Your task to perform on an android device: turn off javascript in the chrome app Image 0: 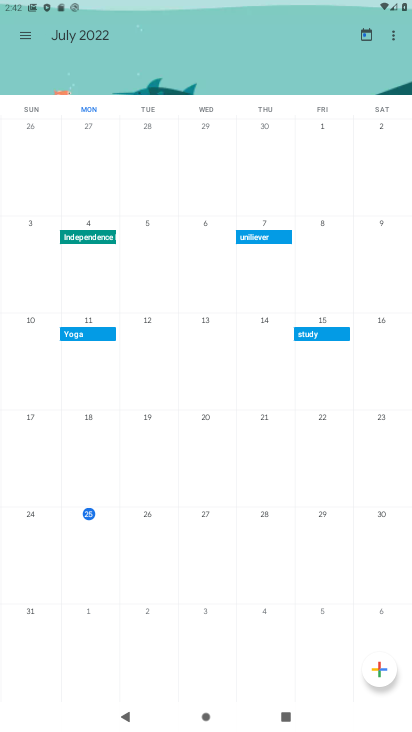
Step 0: press home button
Your task to perform on an android device: turn off javascript in the chrome app Image 1: 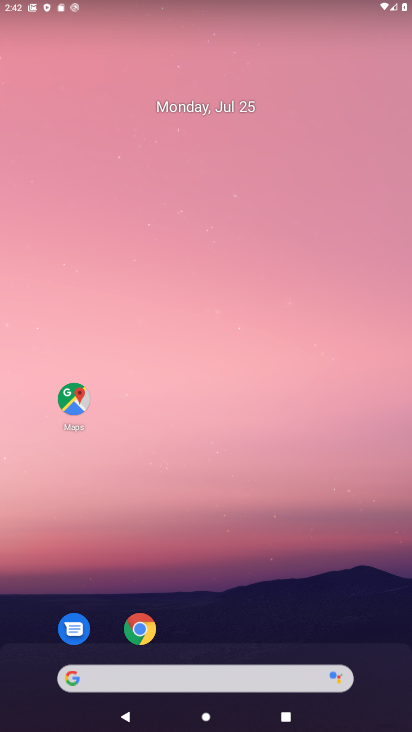
Step 1: drag from (315, 606) to (246, 175)
Your task to perform on an android device: turn off javascript in the chrome app Image 2: 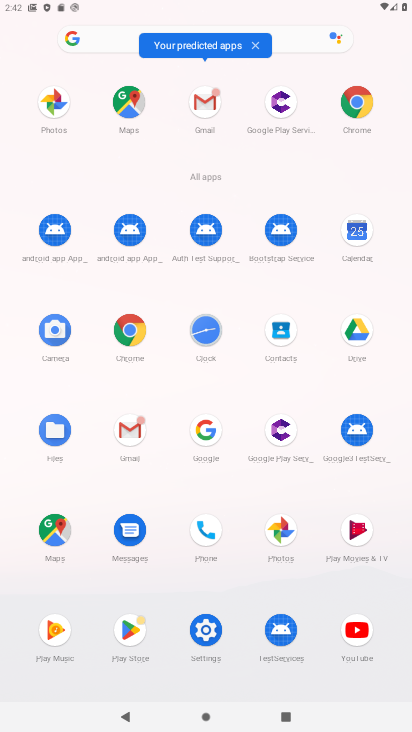
Step 2: click (366, 100)
Your task to perform on an android device: turn off javascript in the chrome app Image 3: 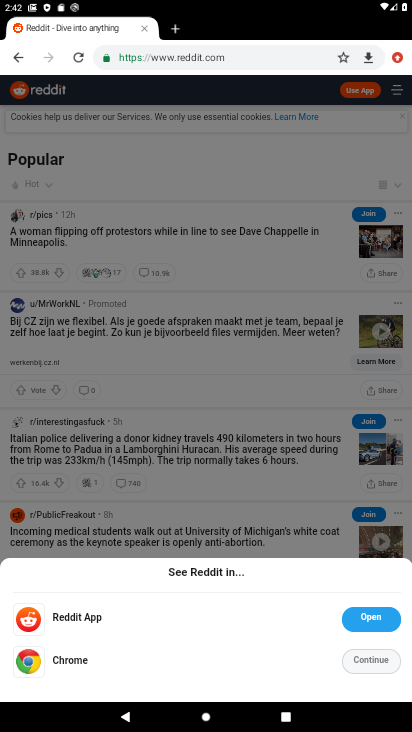
Step 3: click (396, 55)
Your task to perform on an android device: turn off javascript in the chrome app Image 4: 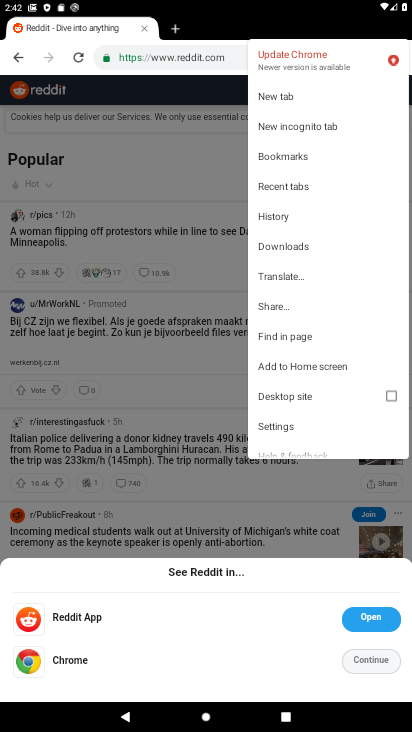
Step 4: drag from (301, 427) to (248, 135)
Your task to perform on an android device: turn off javascript in the chrome app Image 5: 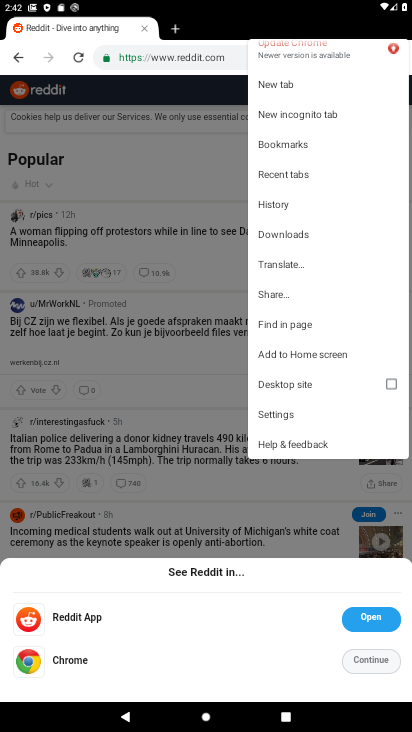
Step 5: click (300, 423)
Your task to perform on an android device: turn off javascript in the chrome app Image 6: 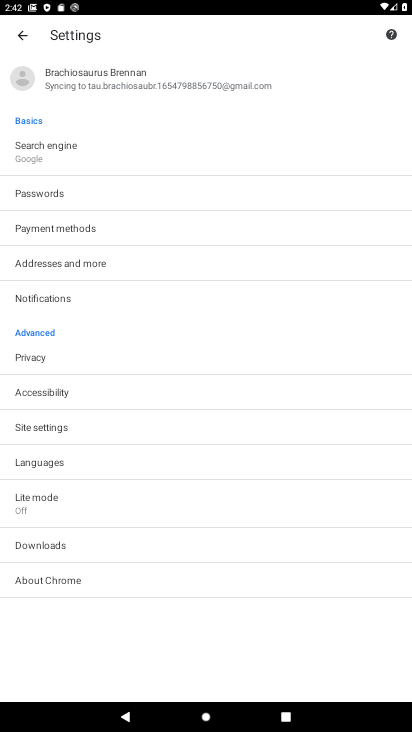
Step 6: click (98, 435)
Your task to perform on an android device: turn off javascript in the chrome app Image 7: 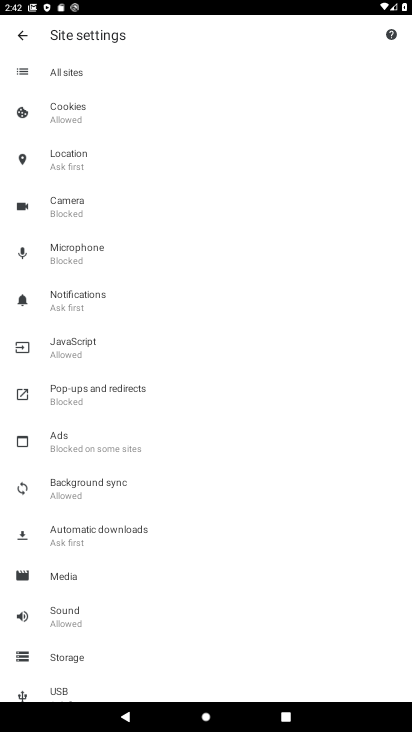
Step 7: click (97, 358)
Your task to perform on an android device: turn off javascript in the chrome app Image 8: 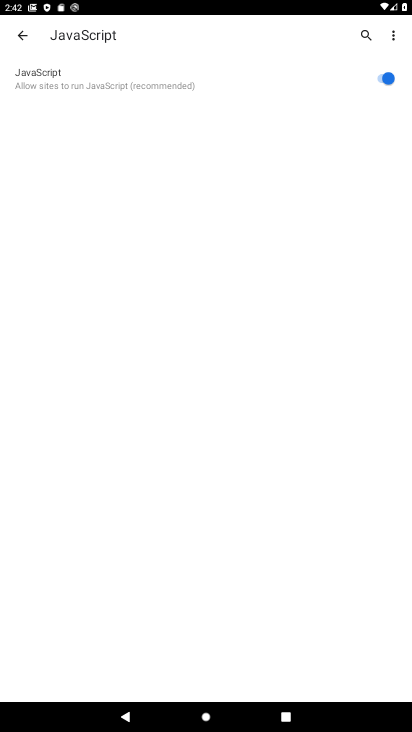
Step 8: click (384, 79)
Your task to perform on an android device: turn off javascript in the chrome app Image 9: 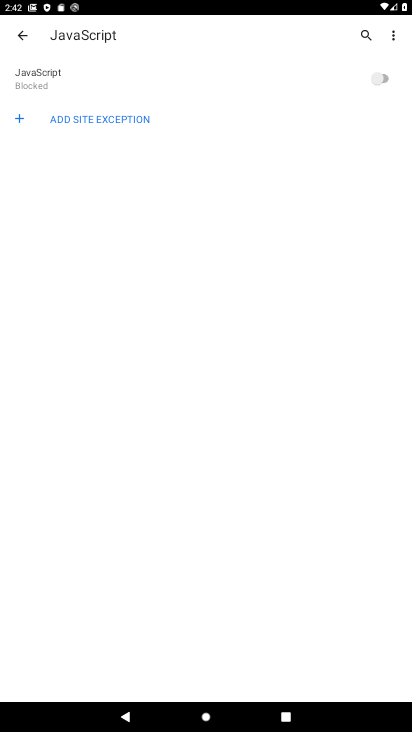
Step 9: task complete